Your task to perform on an android device: turn on showing notifications on the lock screen Image 0: 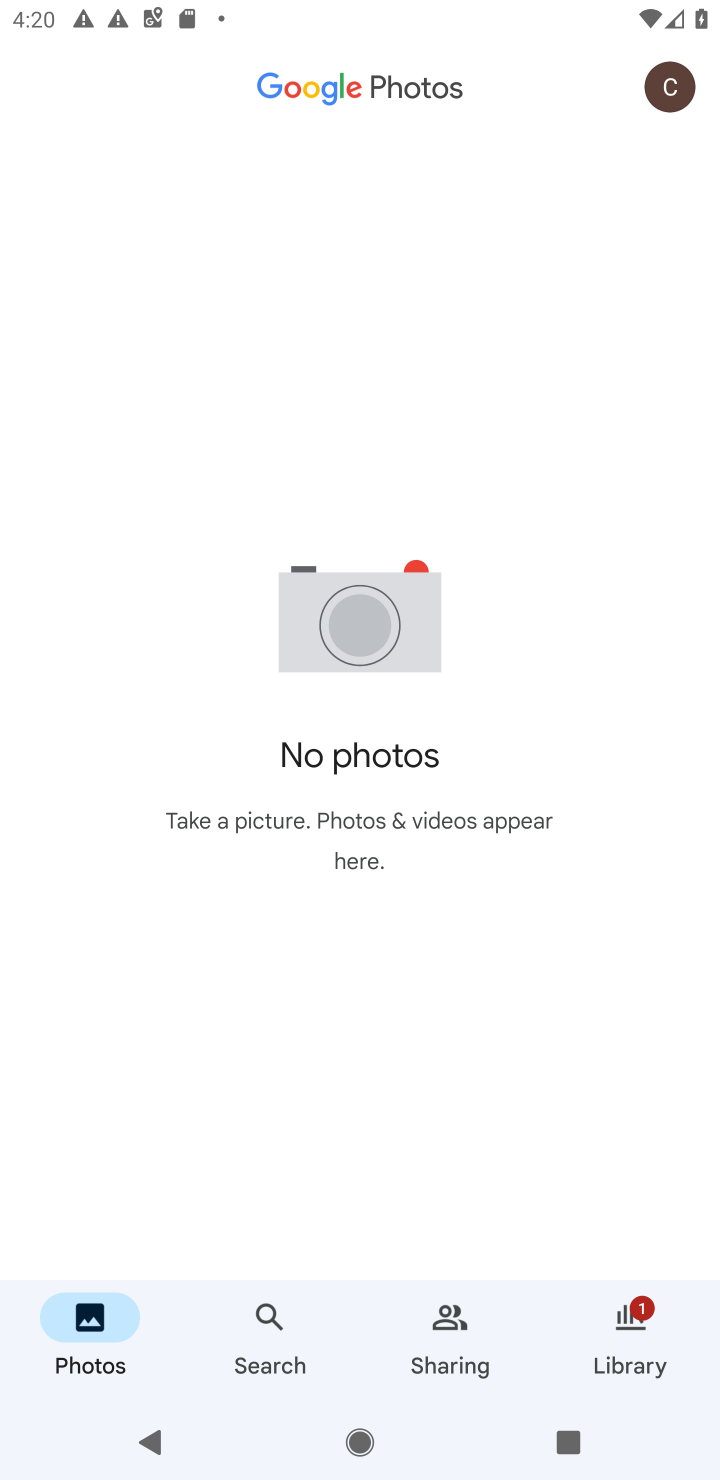
Step 0: press home button
Your task to perform on an android device: turn on showing notifications on the lock screen Image 1: 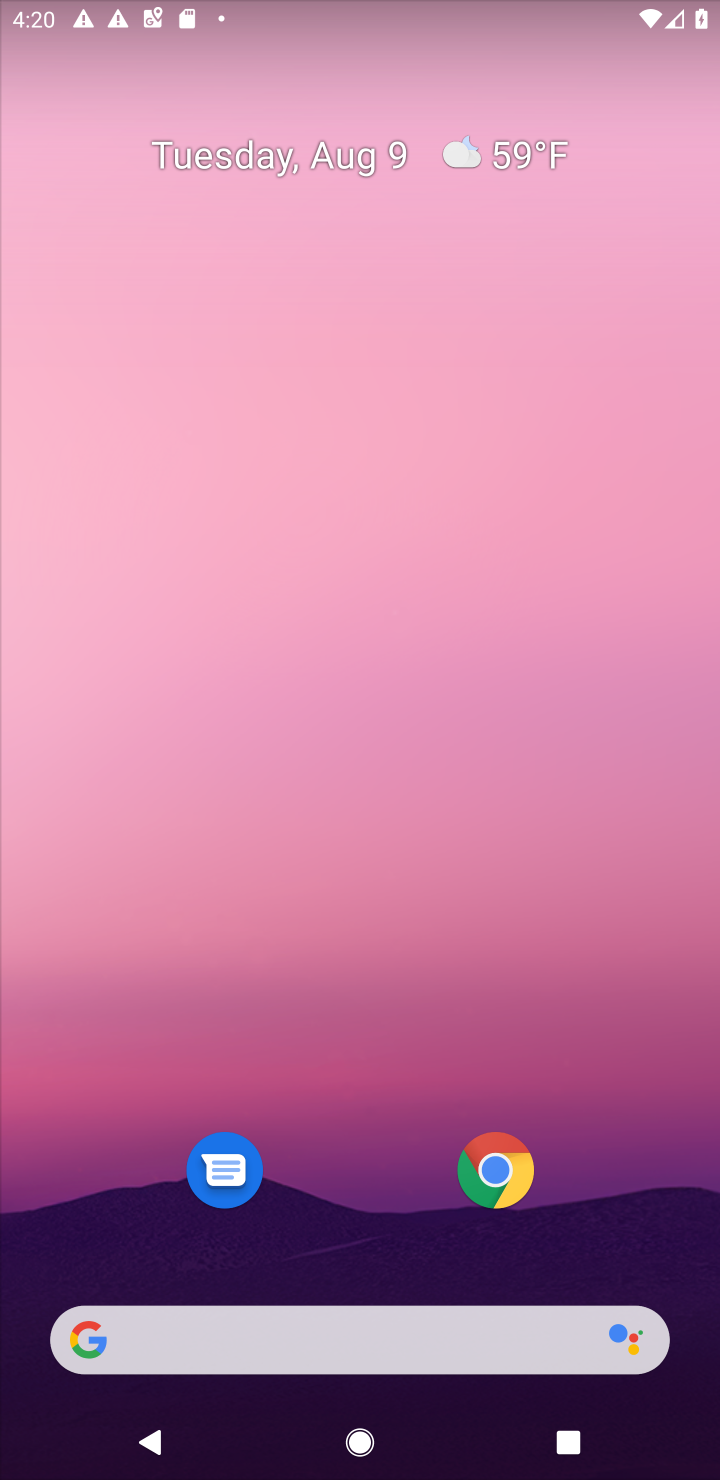
Step 1: drag from (367, 883) to (336, 278)
Your task to perform on an android device: turn on showing notifications on the lock screen Image 2: 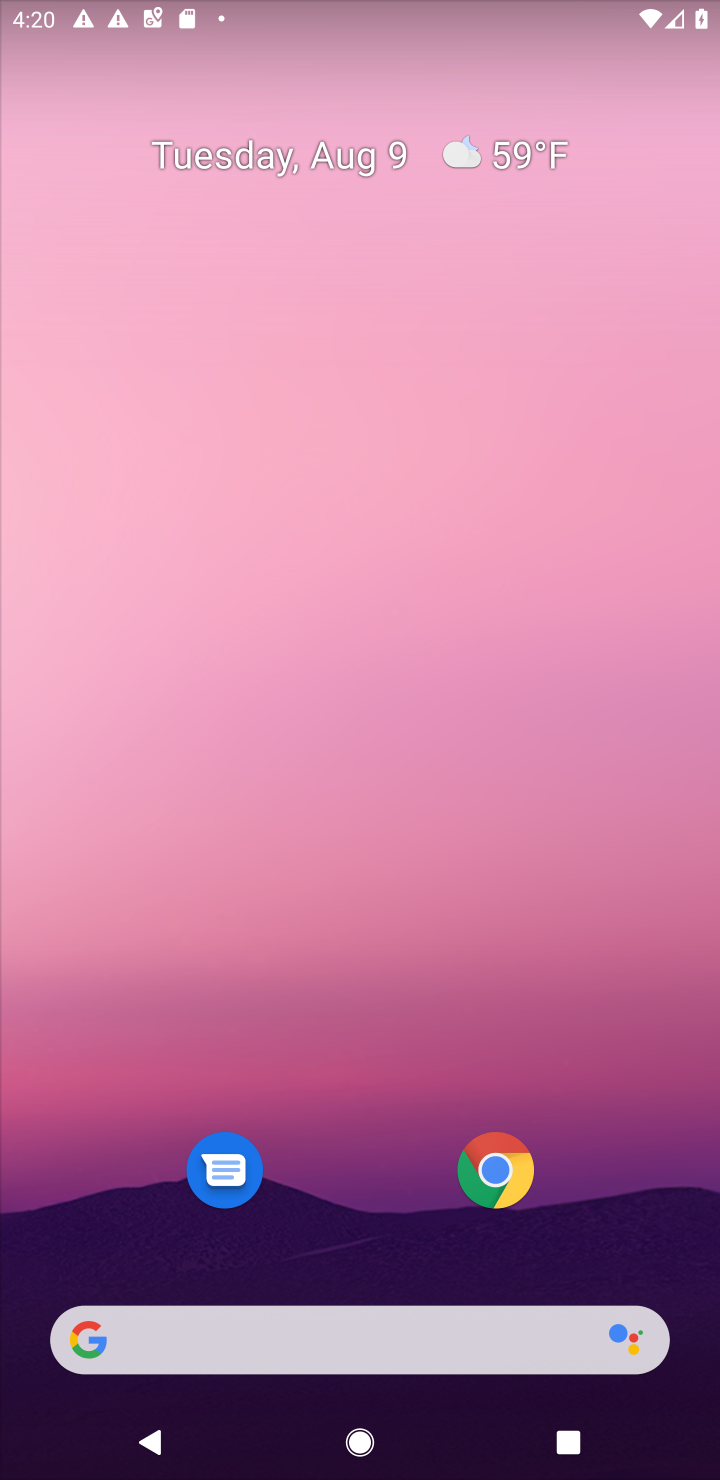
Step 2: drag from (376, 1206) to (336, 249)
Your task to perform on an android device: turn on showing notifications on the lock screen Image 3: 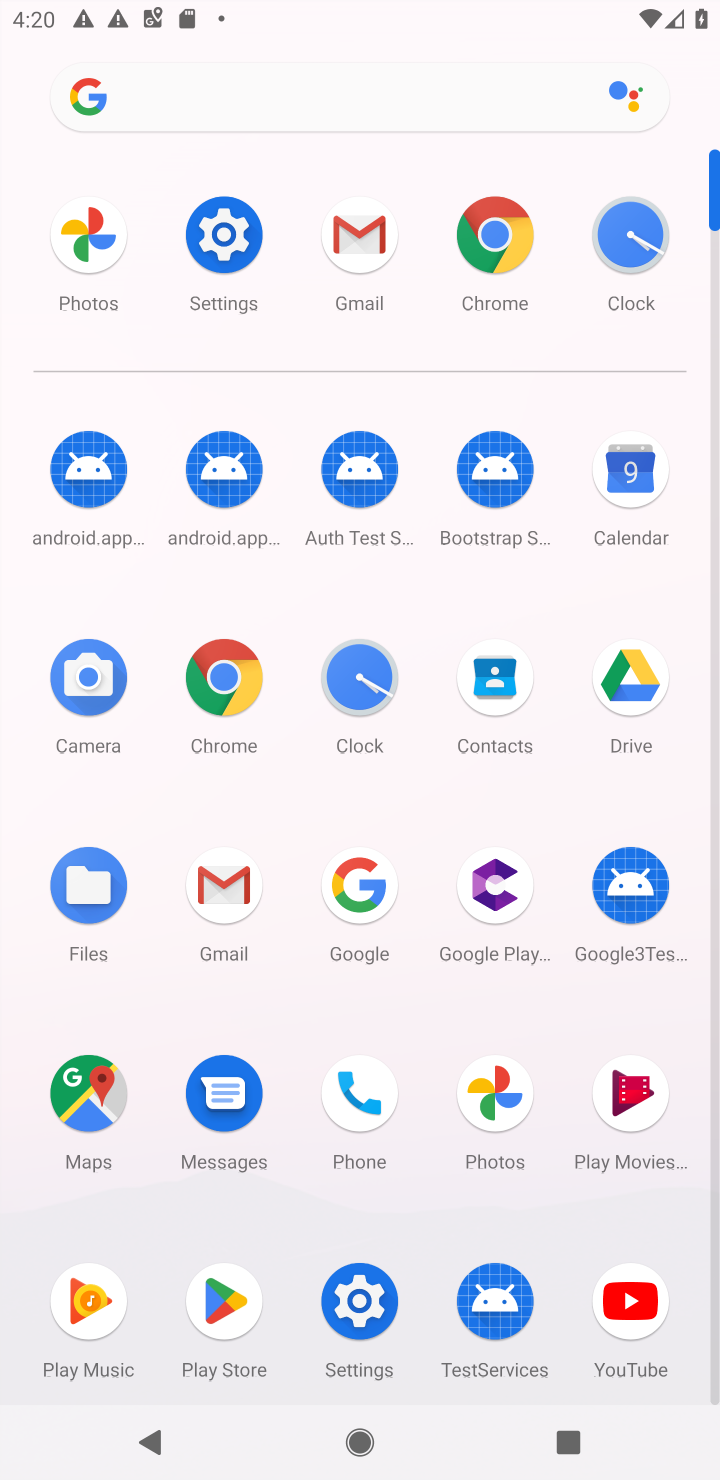
Step 3: click (216, 261)
Your task to perform on an android device: turn on showing notifications on the lock screen Image 4: 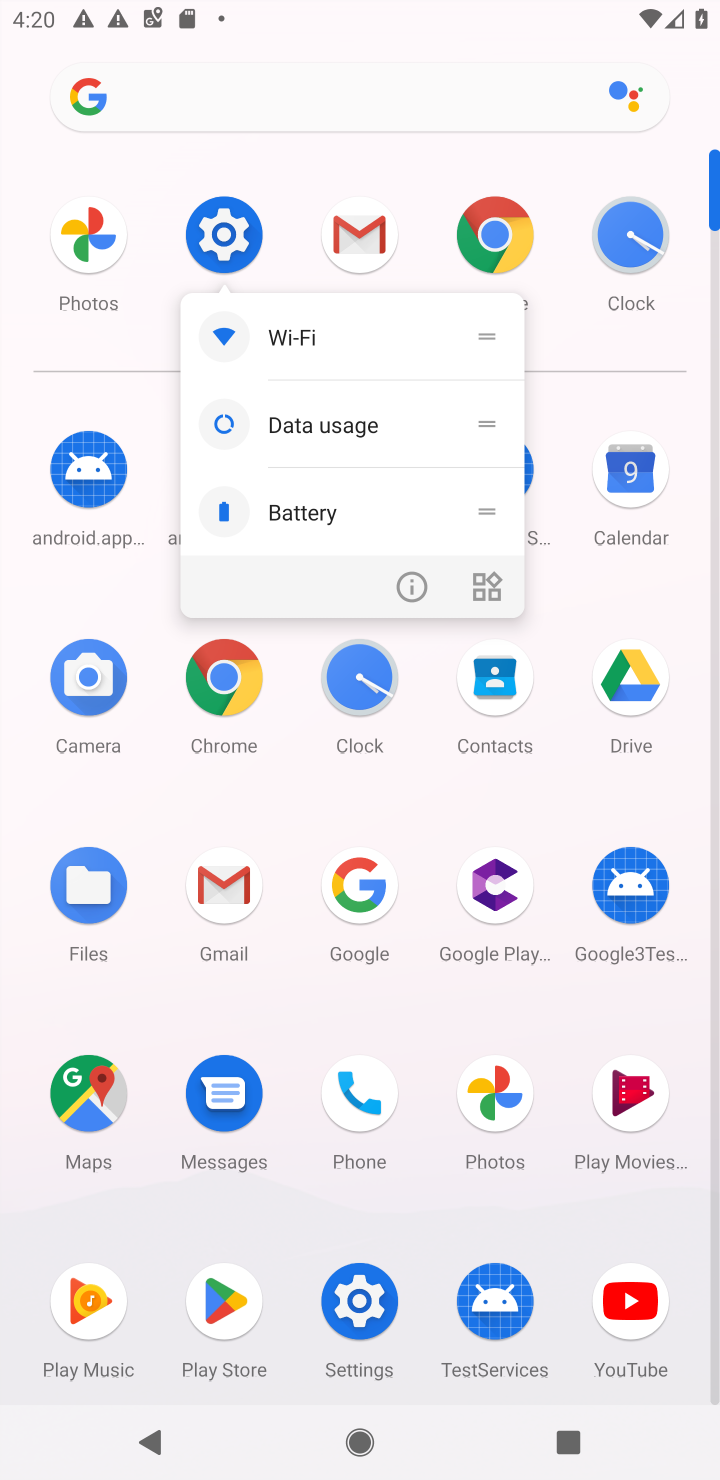
Step 4: click (196, 225)
Your task to perform on an android device: turn on showing notifications on the lock screen Image 5: 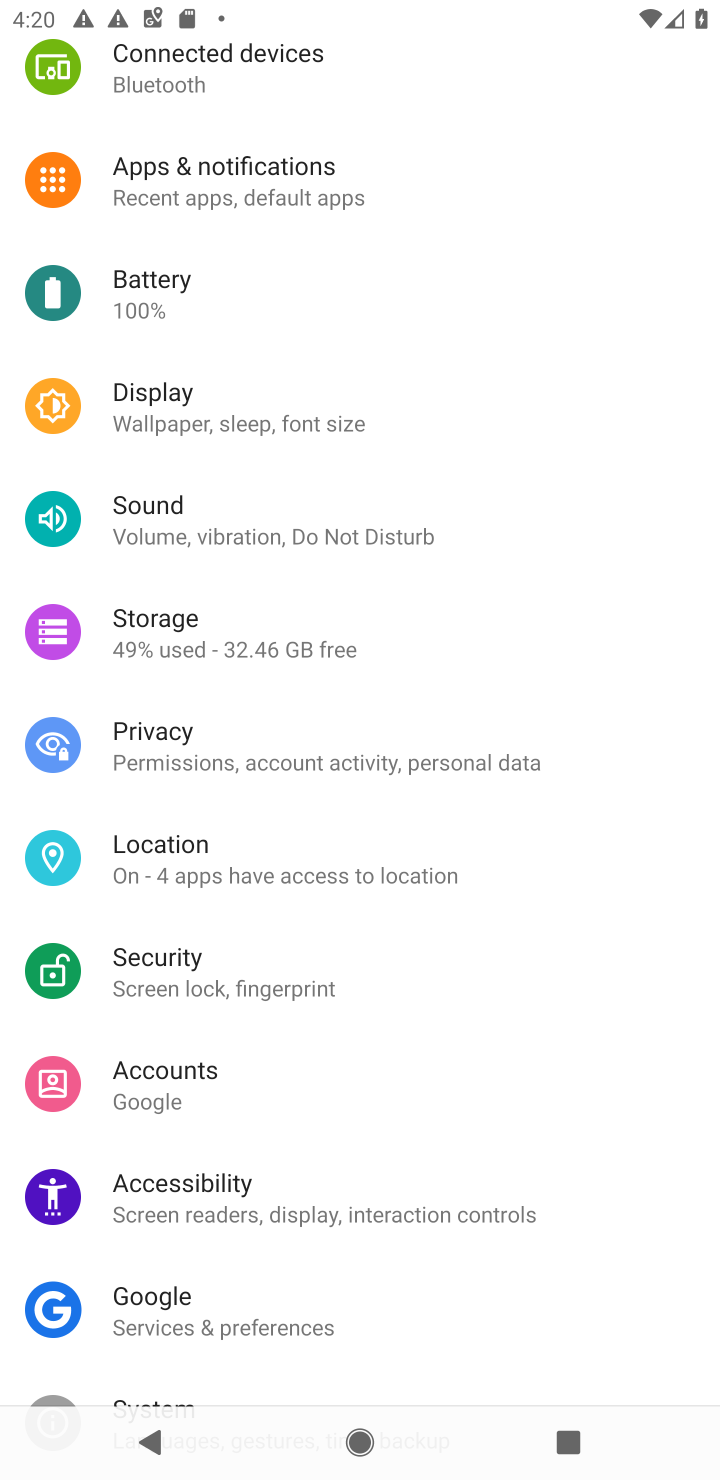
Step 5: click (211, 178)
Your task to perform on an android device: turn on showing notifications on the lock screen Image 6: 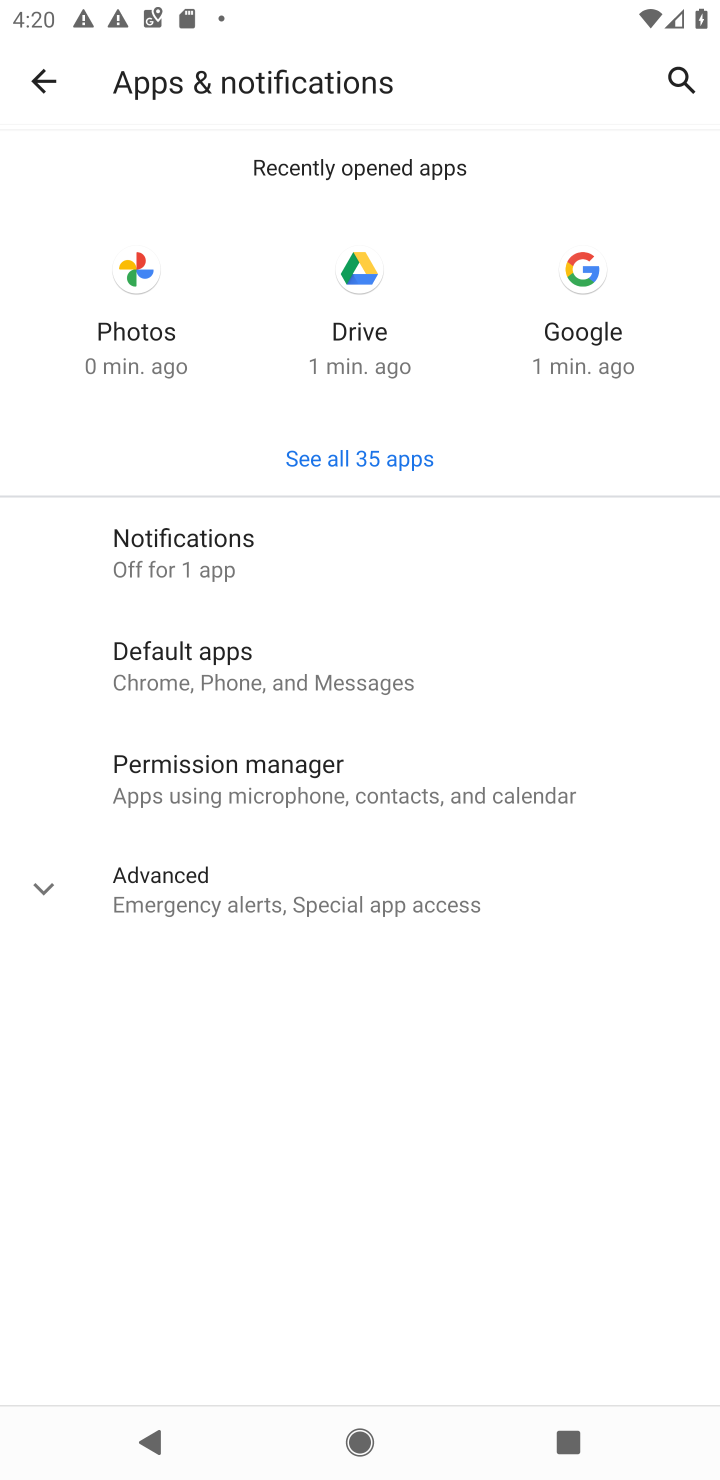
Step 6: click (173, 557)
Your task to perform on an android device: turn on showing notifications on the lock screen Image 7: 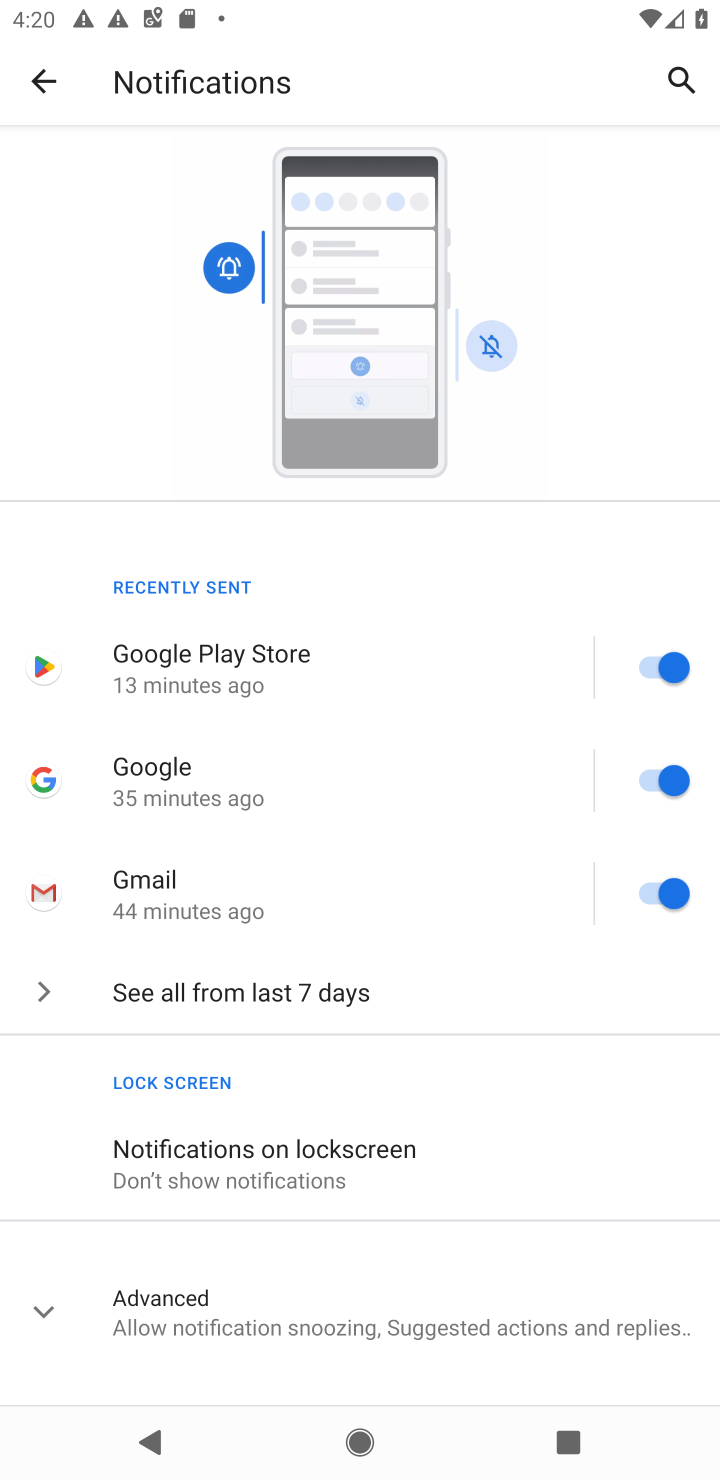
Step 7: click (240, 1164)
Your task to perform on an android device: turn on showing notifications on the lock screen Image 8: 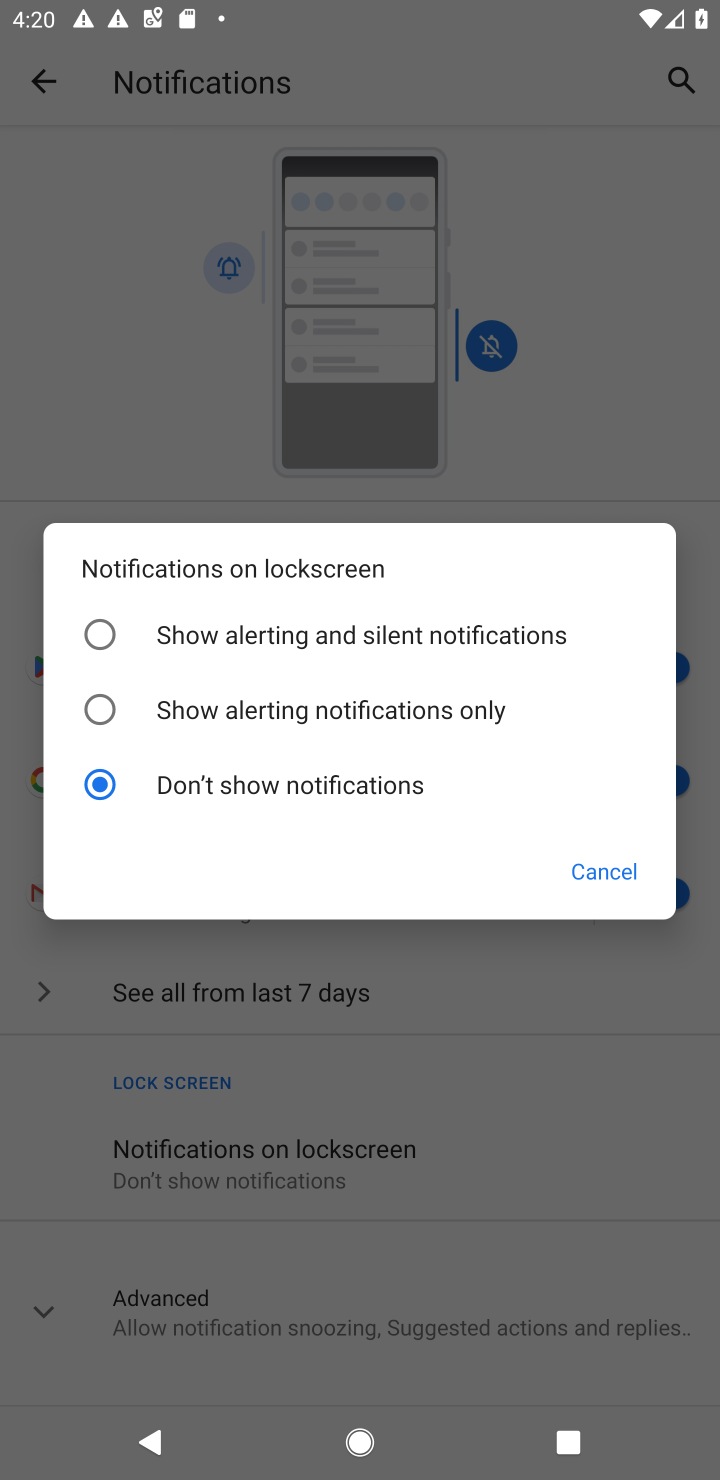
Step 8: click (114, 635)
Your task to perform on an android device: turn on showing notifications on the lock screen Image 9: 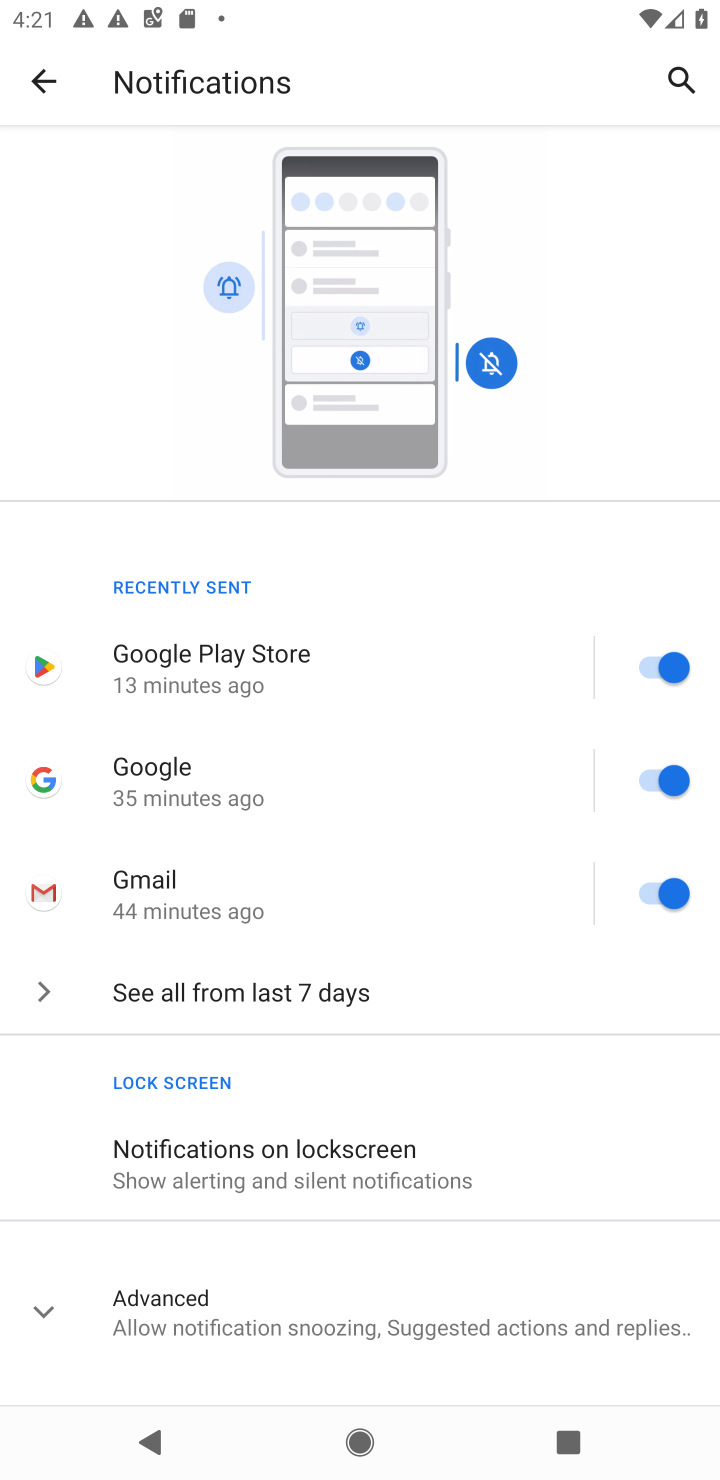
Step 9: task complete